Your task to perform on an android device: Add "logitech g pro" to the cart on bestbuy.com, then select checkout. Image 0: 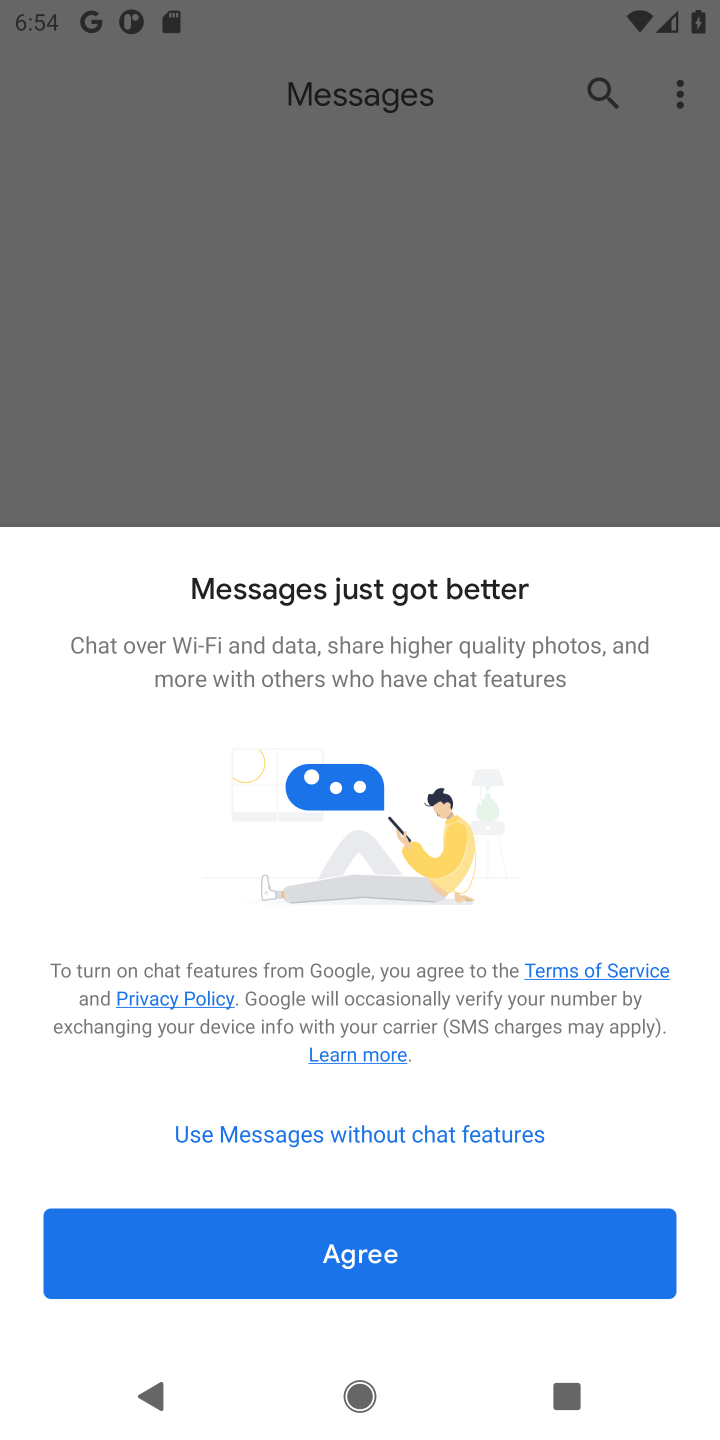
Step 0: press home button
Your task to perform on an android device: Add "logitech g pro" to the cart on bestbuy.com, then select checkout. Image 1: 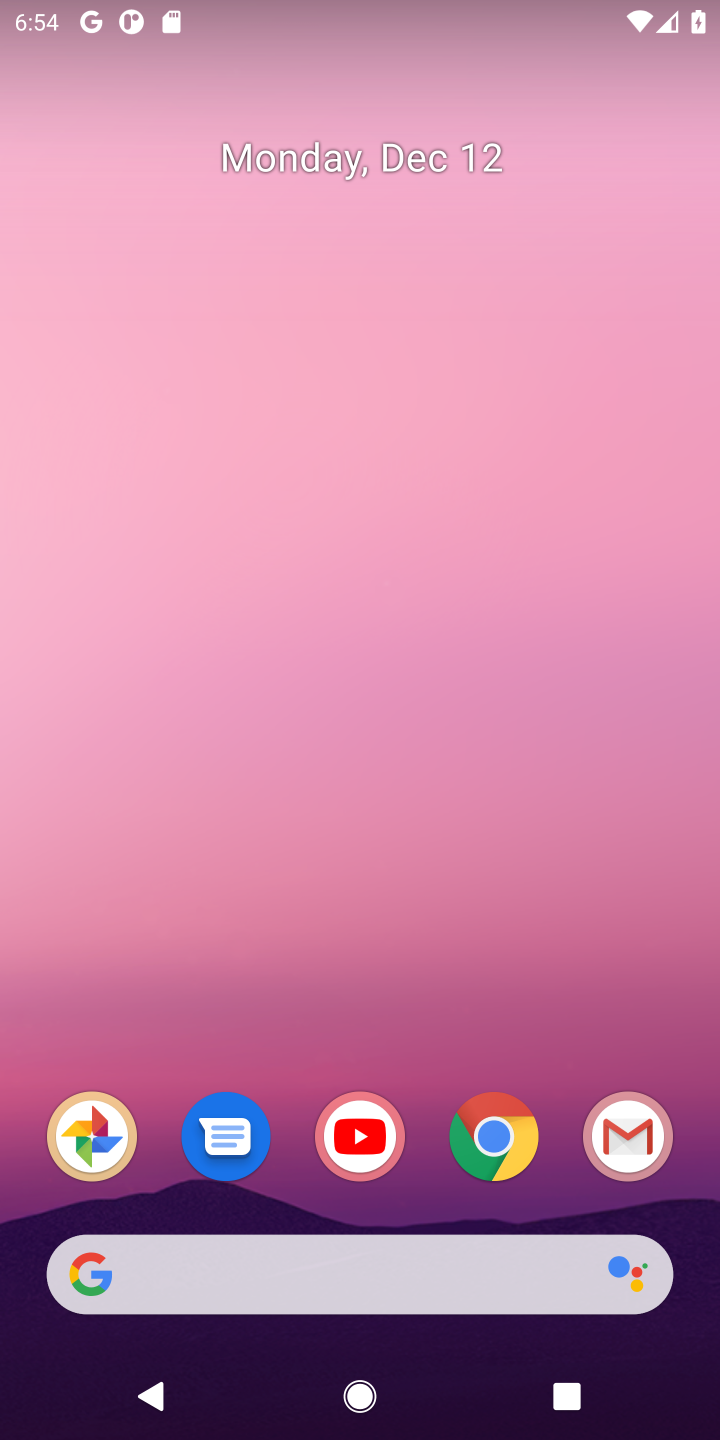
Step 1: click (490, 1138)
Your task to perform on an android device: Add "logitech g pro" to the cart on bestbuy.com, then select checkout. Image 2: 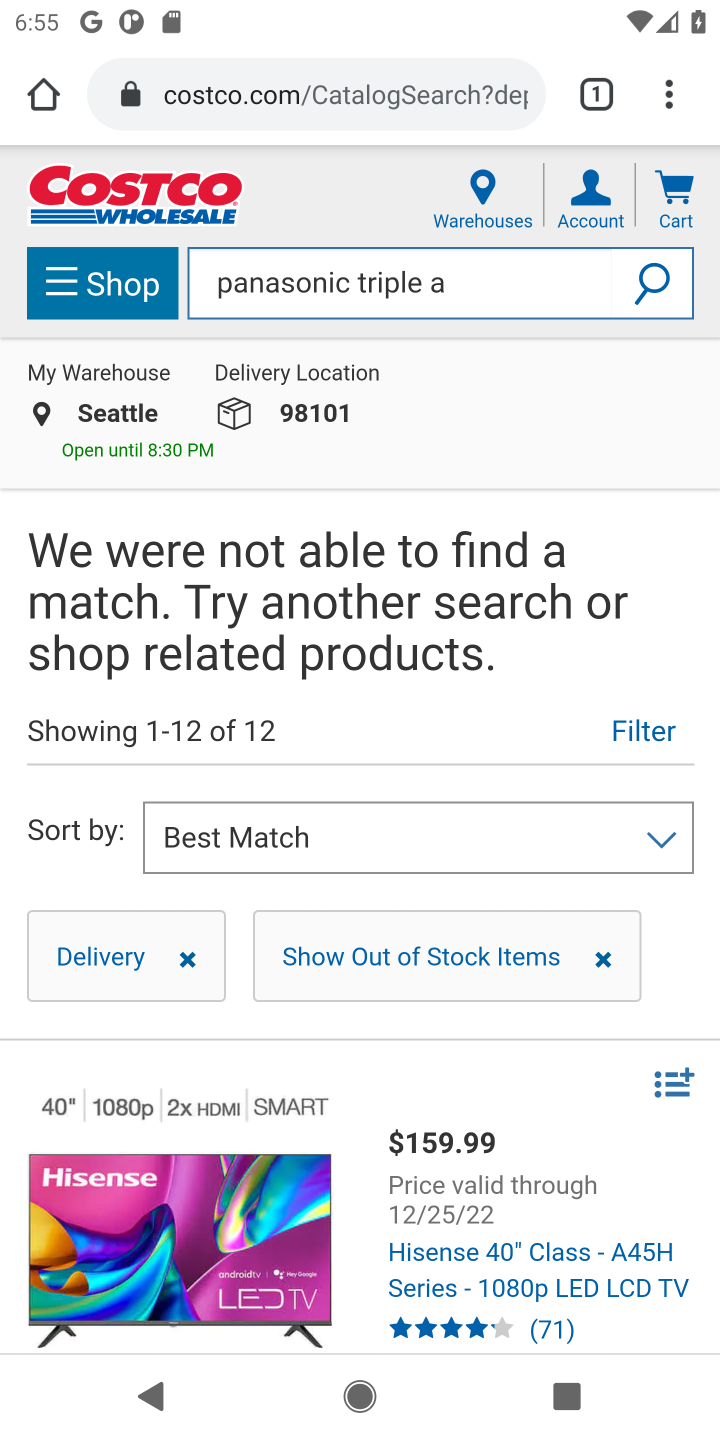
Step 2: click (323, 83)
Your task to perform on an android device: Add "logitech g pro" to the cart on bestbuy.com, then select checkout. Image 3: 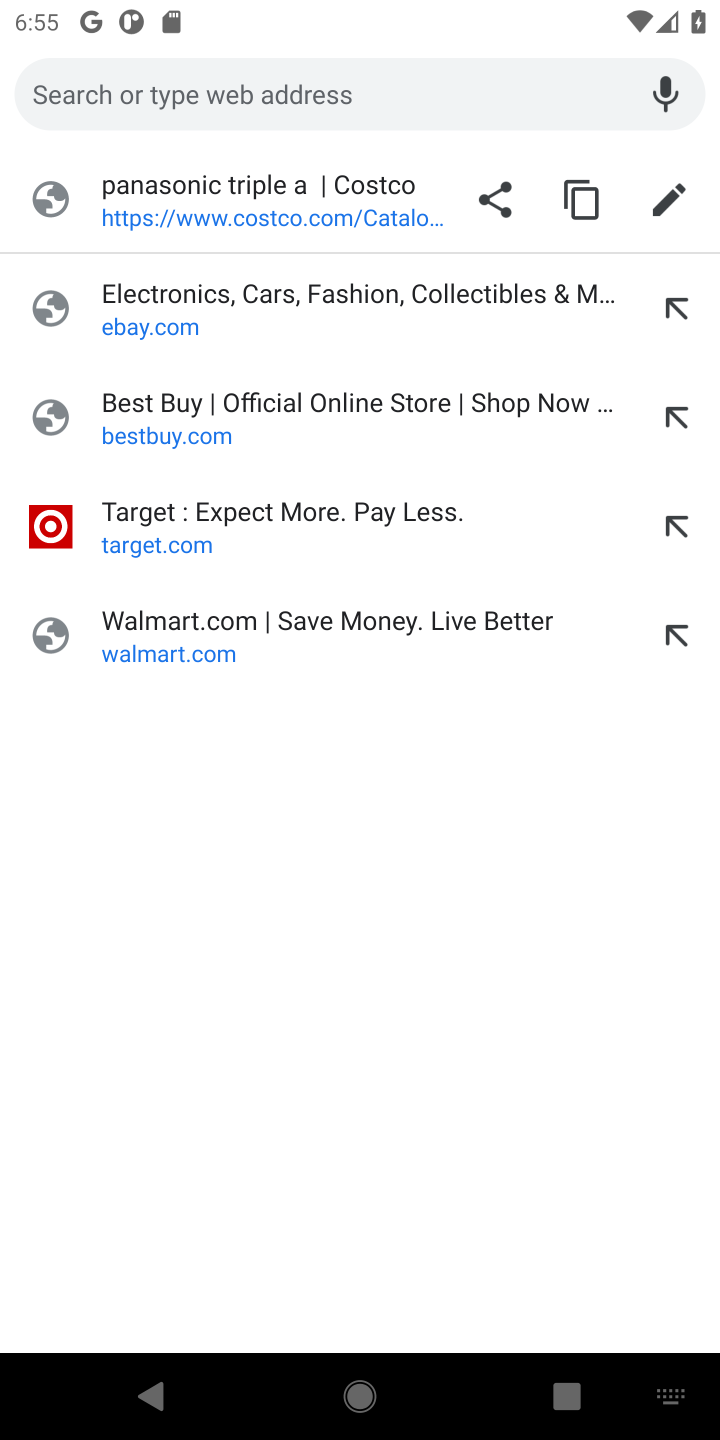
Step 3: click (177, 416)
Your task to perform on an android device: Add "logitech g pro" to the cart on bestbuy.com, then select checkout. Image 4: 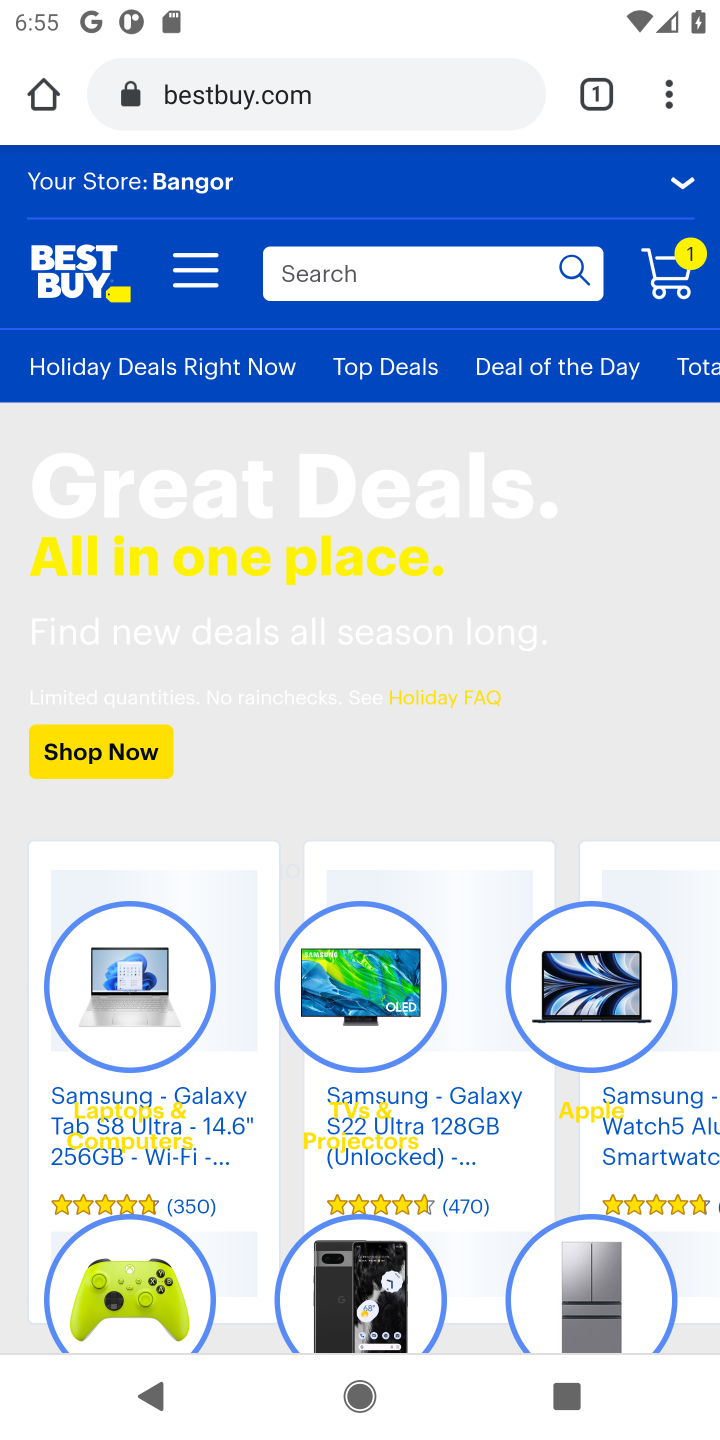
Step 4: click (373, 283)
Your task to perform on an android device: Add "logitech g pro" to the cart on bestbuy.com, then select checkout. Image 5: 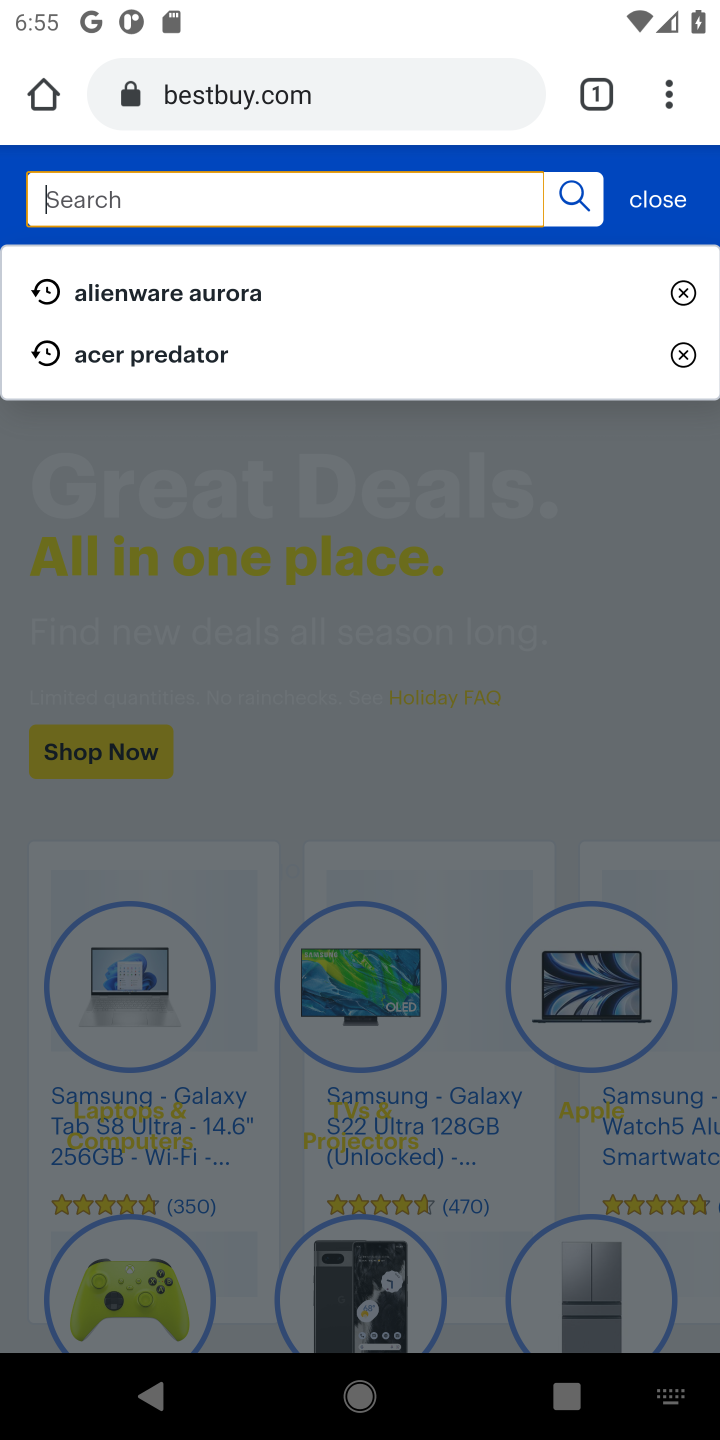
Step 5: type "logitech g pro"
Your task to perform on an android device: Add "logitech g pro" to the cart on bestbuy.com, then select checkout. Image 6: 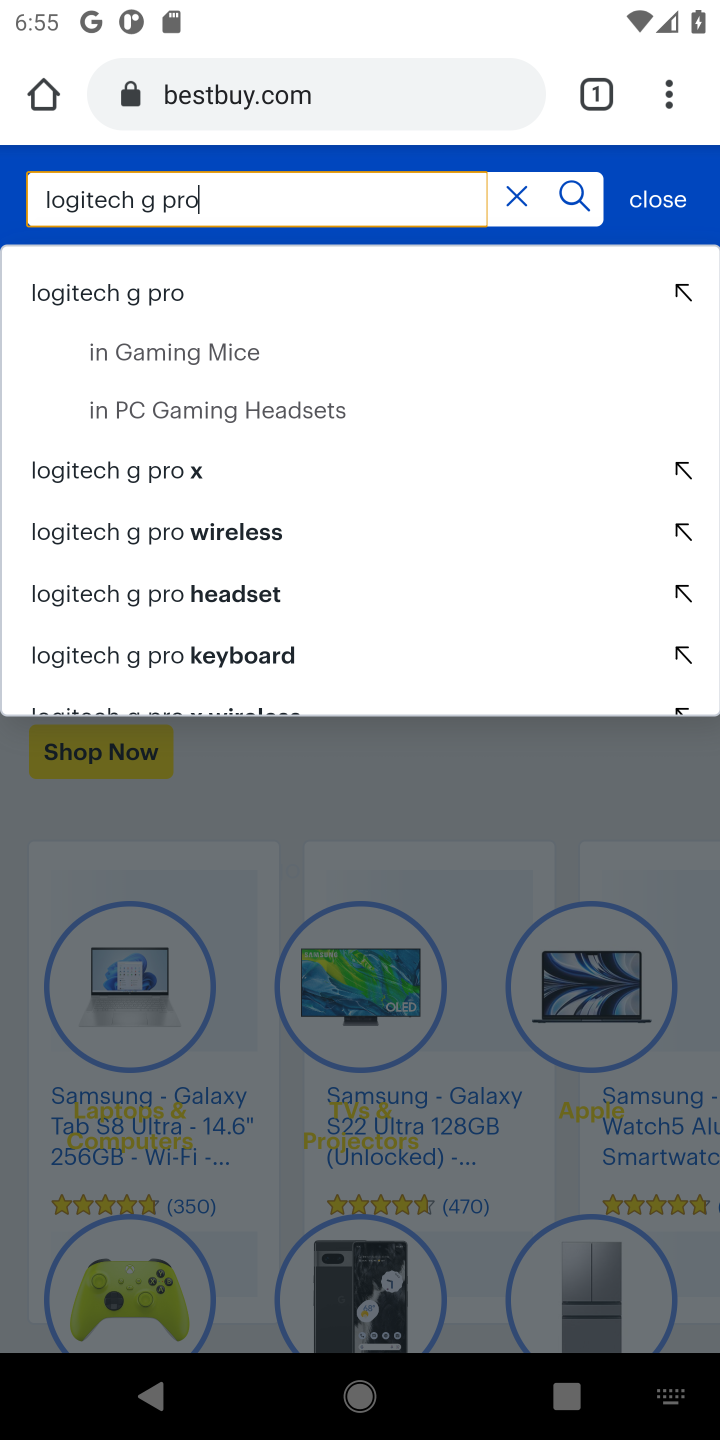
Step 6: click (87, 300)
Your task to perform on an android device: Add "logitech g pro" to the cart on bestbuy.com, then select checkout. Image 7: 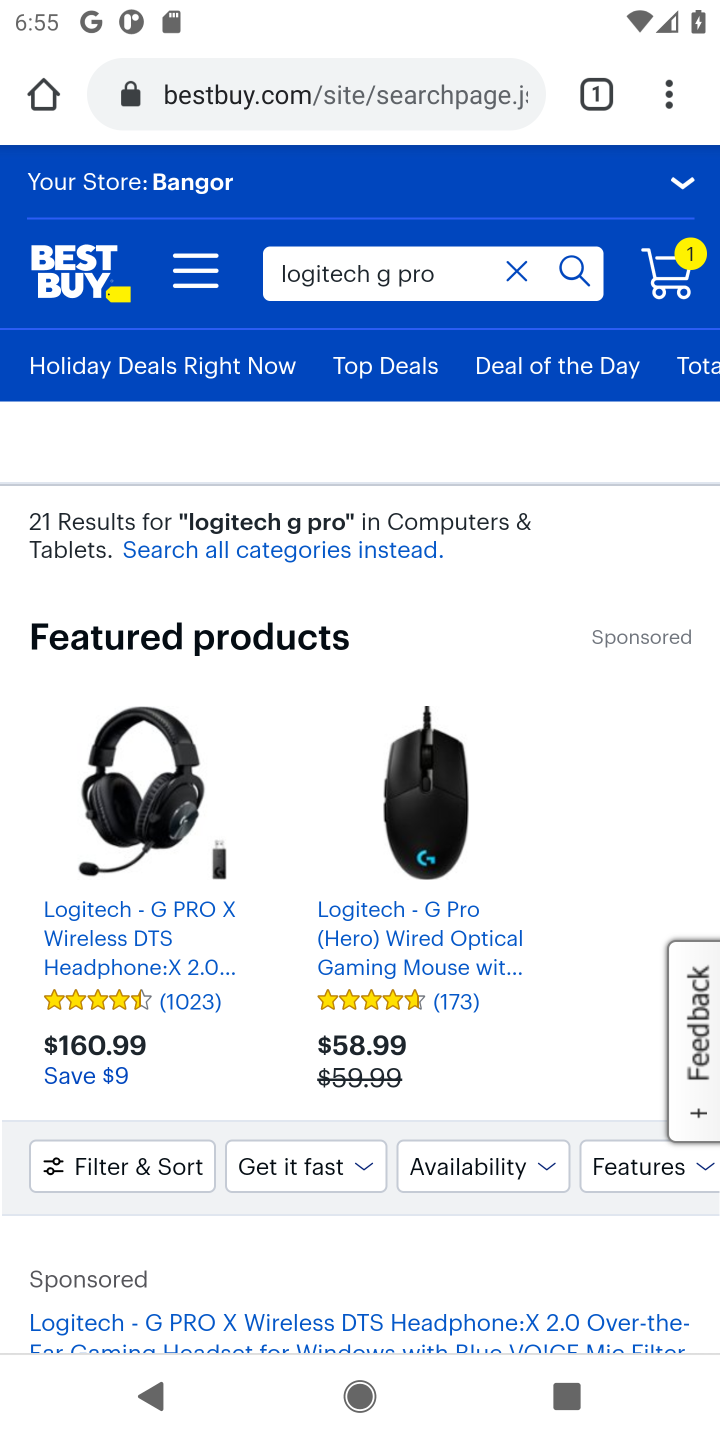
Step 7: drag from (357, 854) to (342, 329)
Your task to perform on an android device: Add "logitech g pro" to the cart on bestbuy.com, then select checkout. Image 8: 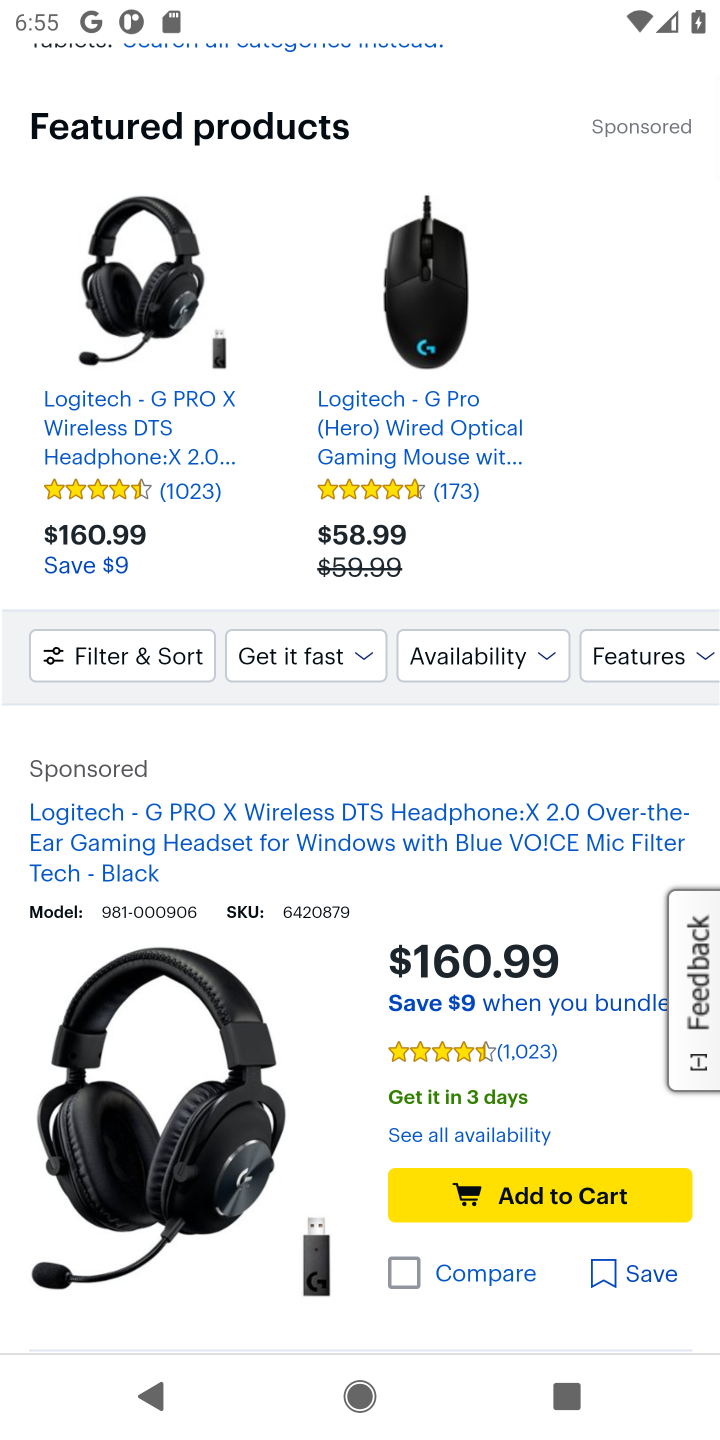
Step 8: drag from (363, 875) to (303, 553)
Your task to perform on an android device: Add "logitech g pro" to the cart on bestbuy.com, then select checkout. Image 9: 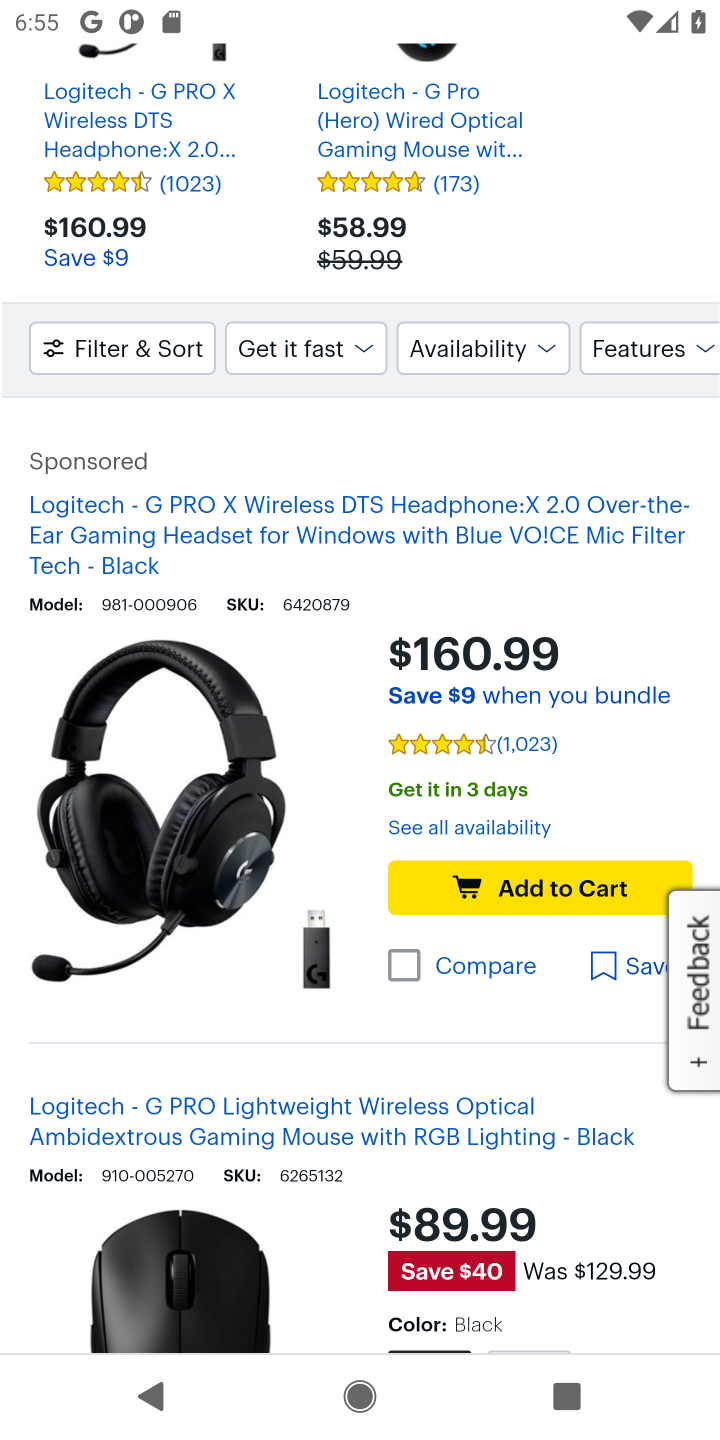
Step 9: click (484, 890)
Your task to perform on an android device: Add "logitech g pro" to the cart on bestbuy.com, then select checkout. Image 10: 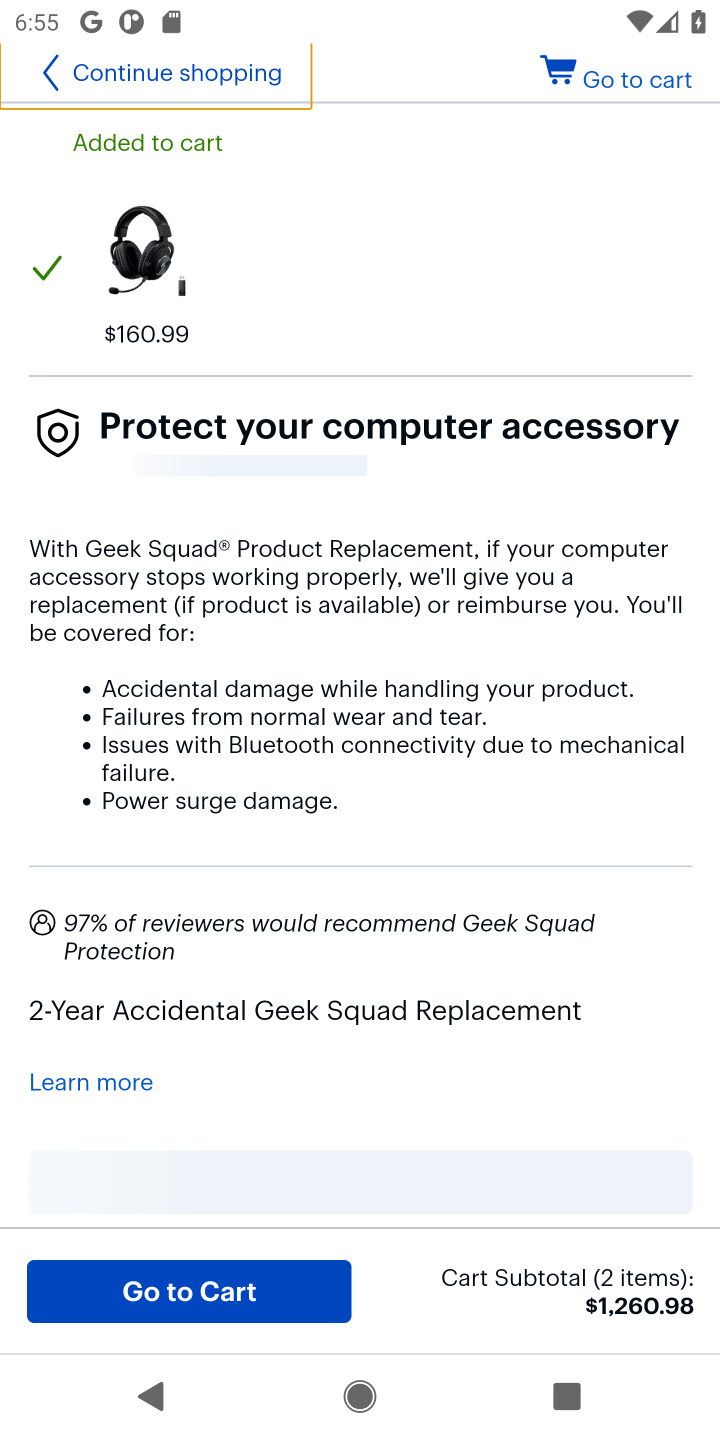
Step 10: click (625, 83)
Your task to perform on an android device: Add "logitech g pro" to the cart on bestbuy.com, then select checkout. Image 11: 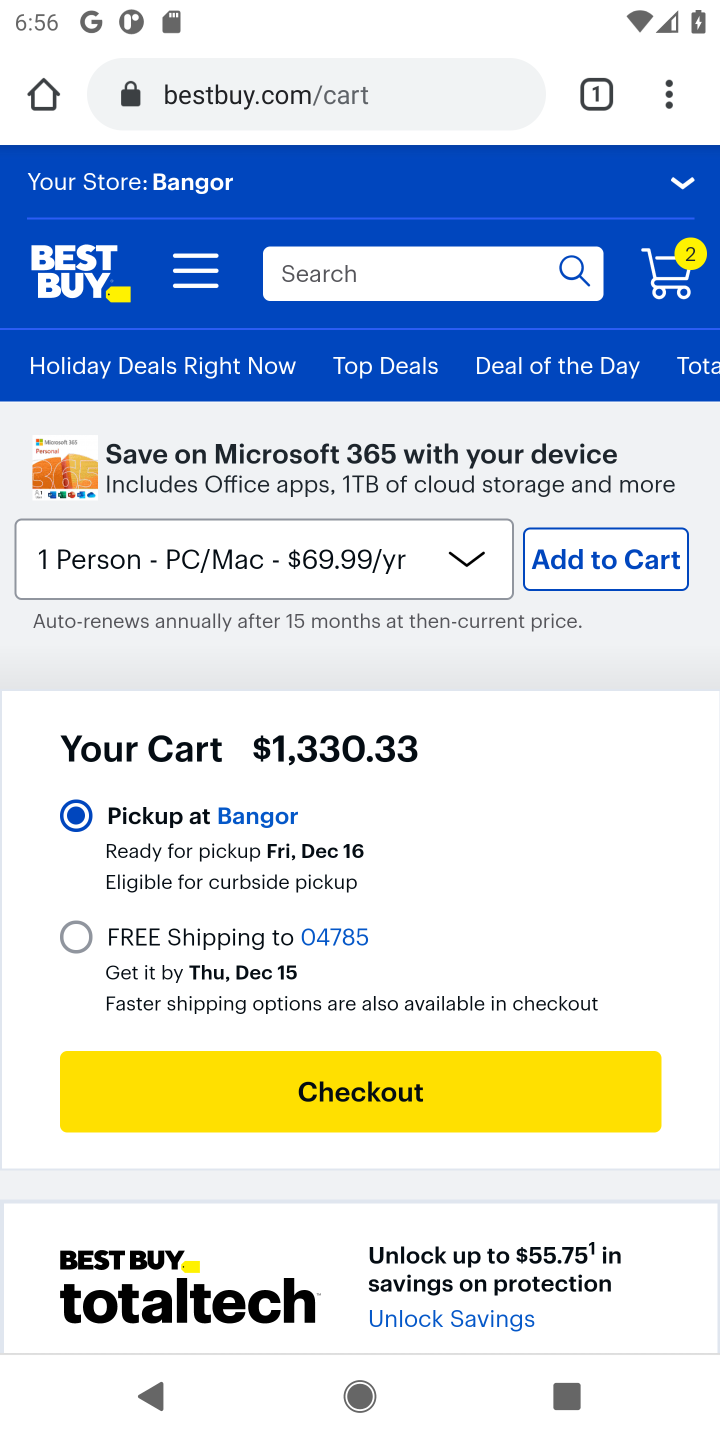
Step 11: click (350, 1086)
Your task to perform on an android device: Add "logitech g pro" to the cart on bestbuy.com, then select checkout. Image 12: 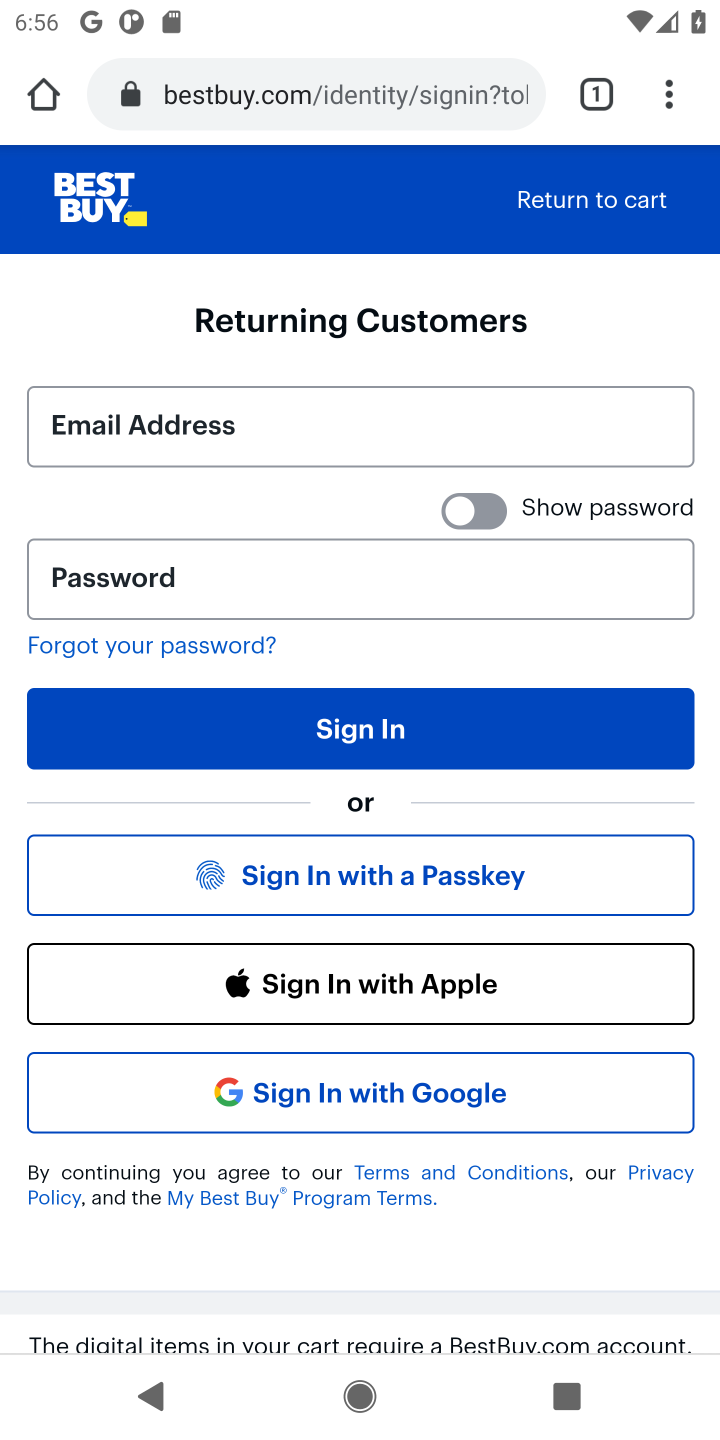
Step 12: task complete